Your task to perform on an android device: Open calendar and show me the first week of next month Image 0: 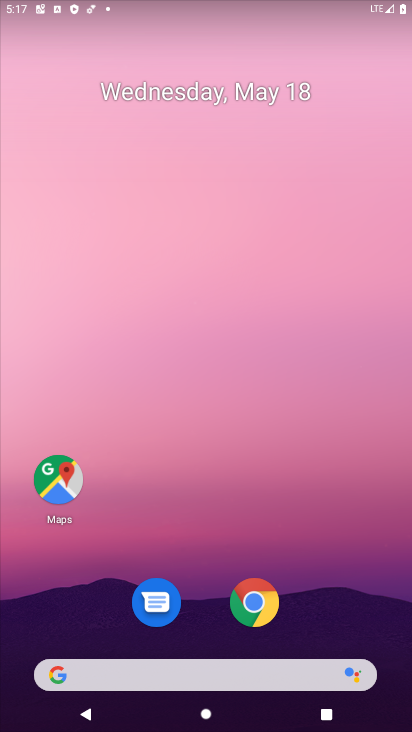
Step 0: drag from (271, 659) to (257, 22)
Your task to perform on an android device: Open calendar and show me the first week of next month Image 1: 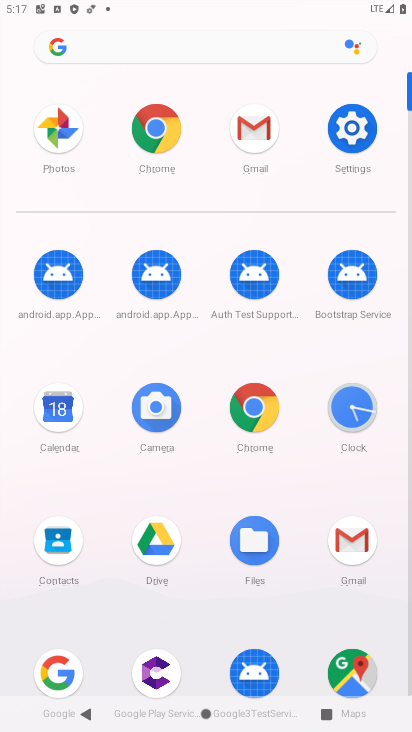
Step 1: click (55, 417)
Your task to perform on an android device: Open calendar and show me the first week of next month Image 2: 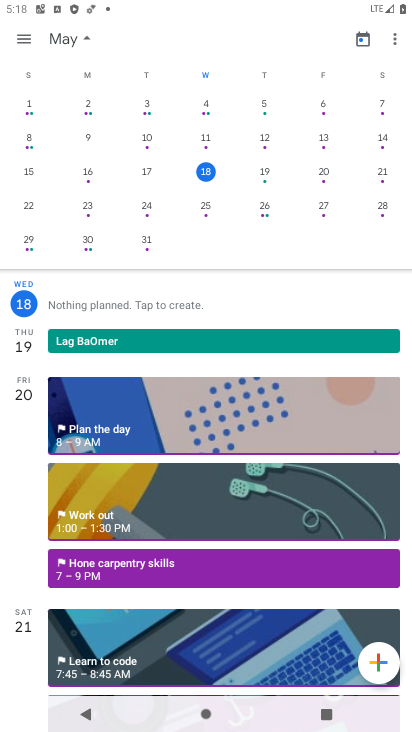
Step 2: drag from (367, 173) to (7, 210)
Your task to perform on an android device: Open calendar and show me the first week of next month Image 3: 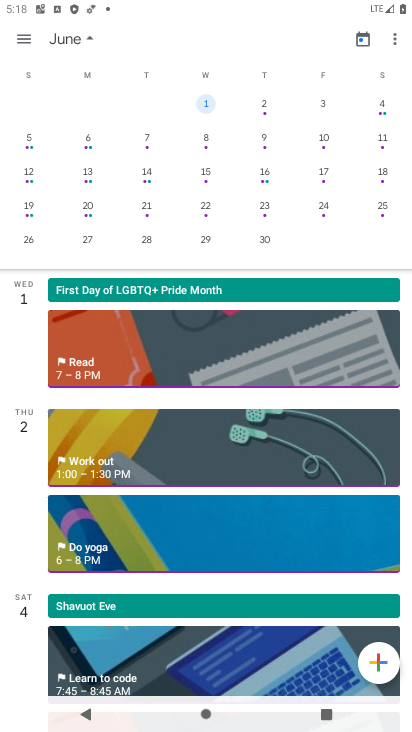
Step 3: click (330, 106)
Your task to perform on an android device: Open calendar and show me the first week of next month Image 4: 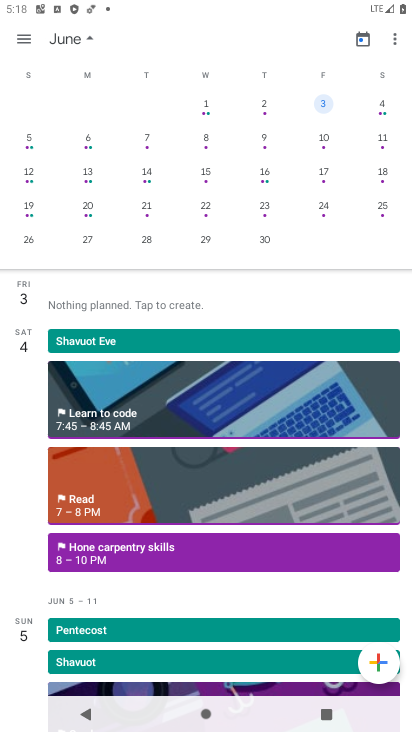
Step 4: task complete